Your task to perform on an android device: Search for the best 4k TVs Image 0: 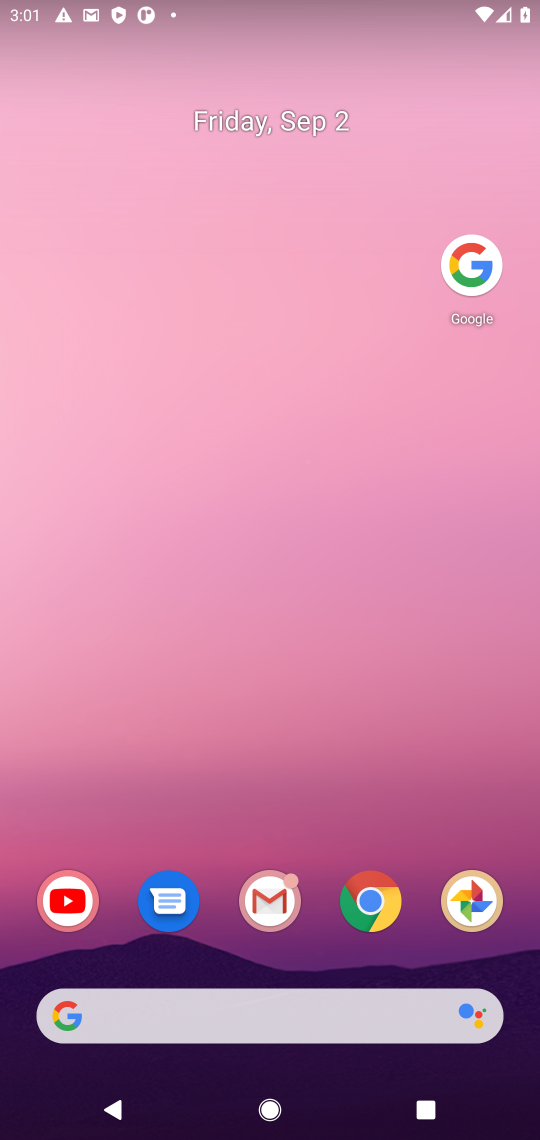
Step 0: drag from (220, 960) to (344, 71)
Your task to perform on an android device: Search for the best 4k TVs Image 1: 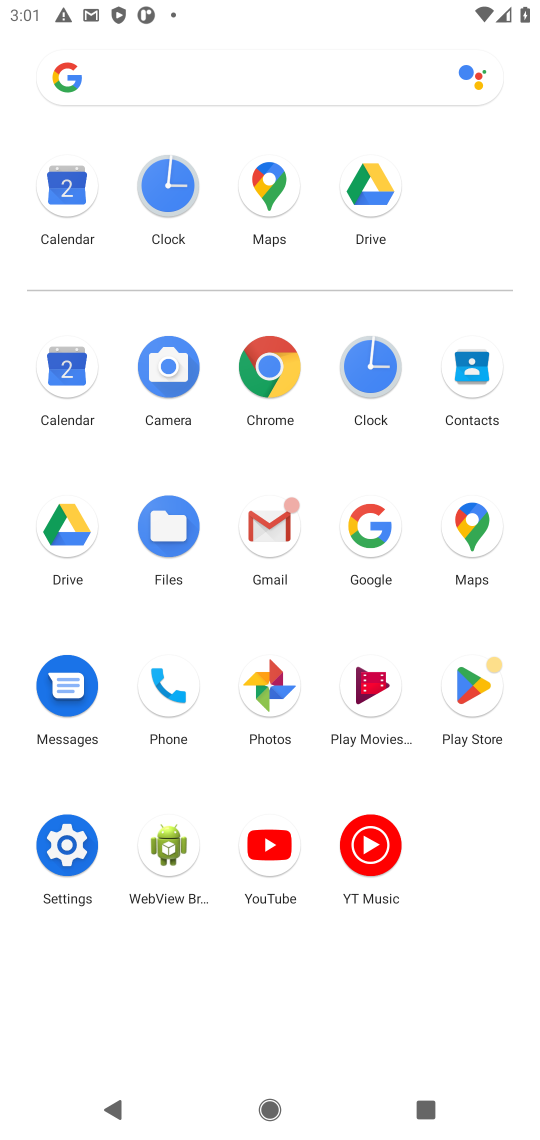
Step 1: click (368, 508)
Your task to perform on an android device: Search for the best 4k TVs Image 2: 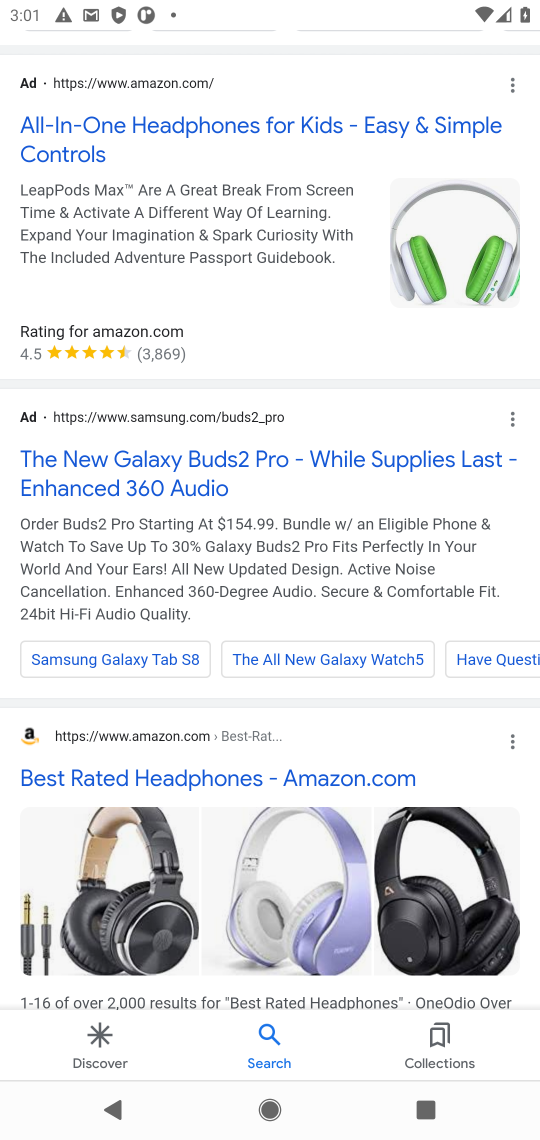
Step 2: drag from (338, 222) to (277, 880)
Your task to perform on an android device: Search for the best 4k TVs Image 3: 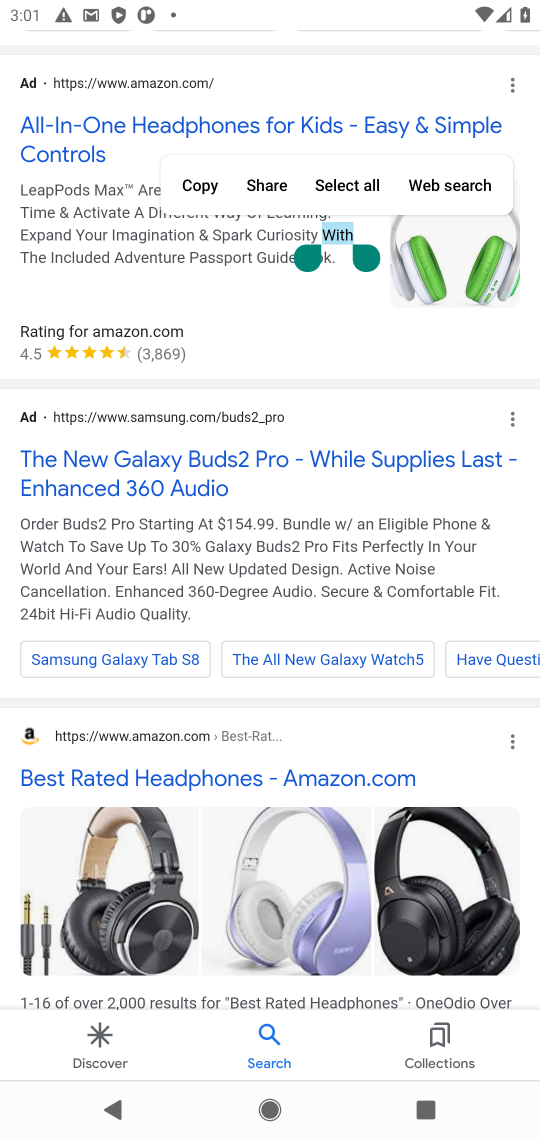
Step 3: drag from (208, 87) to (193, 707)
Your task to perform on an android device: Search for the best 4k TVs Image 4: 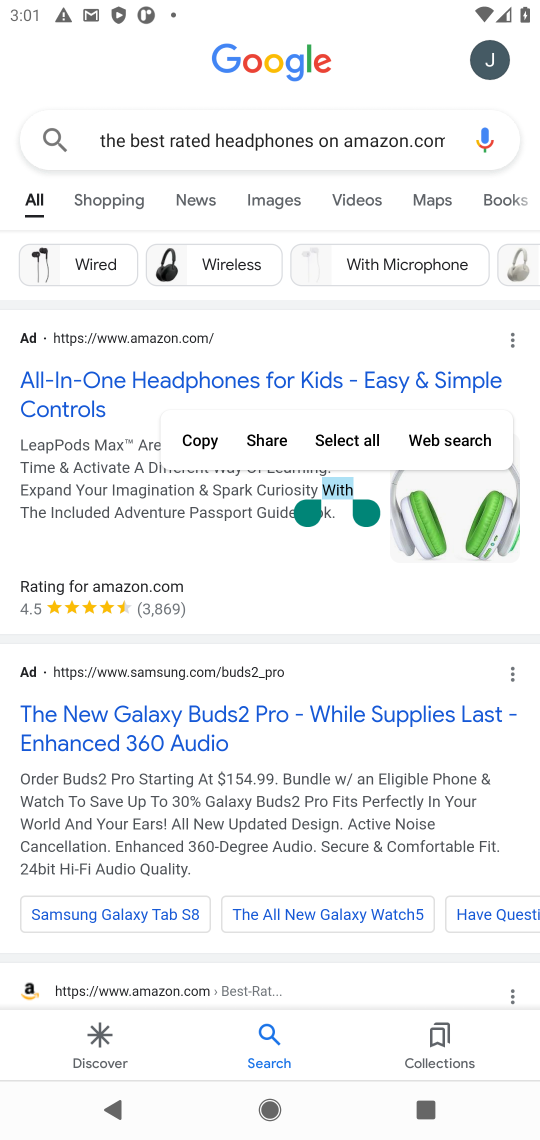
Step 4: click (281, 85)
Your task to perform on an android device: Search for the best 4k TVs Image 5: 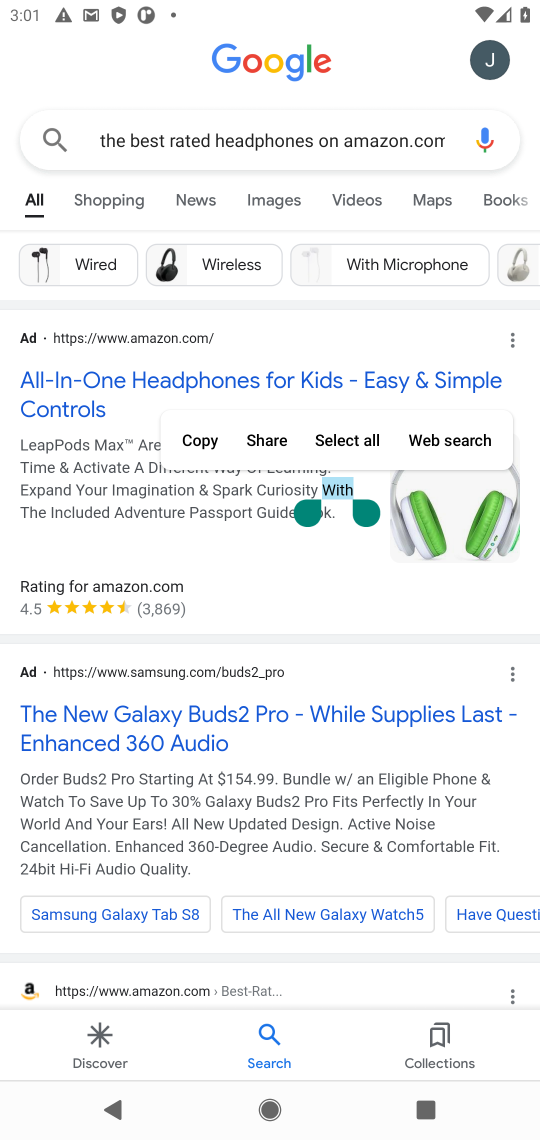
Step 5: click (270, 155)
Your task to perform on an android device: Search for the best 4k TVs Image 6: 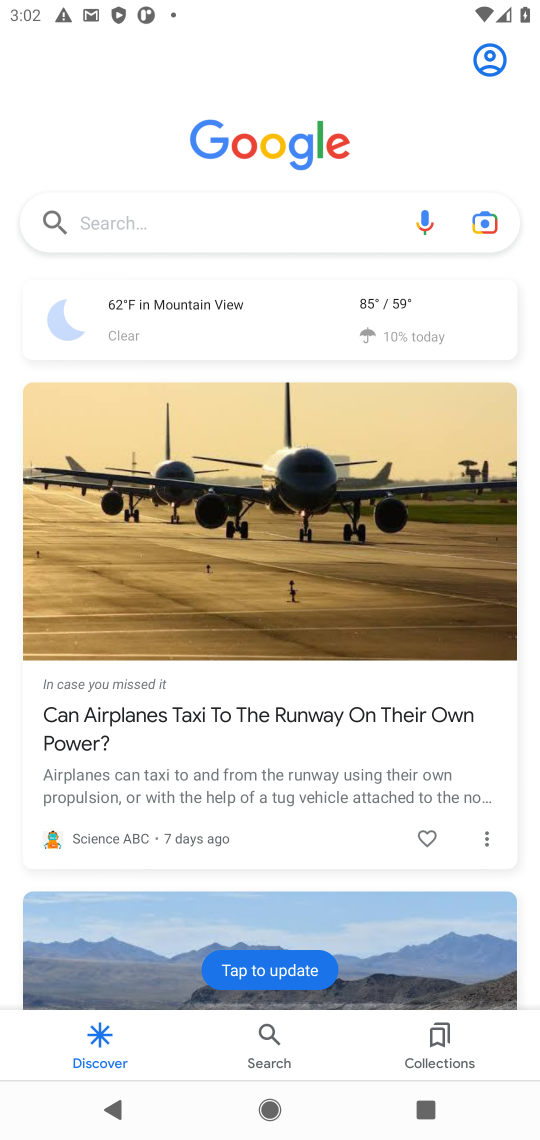
Step 6: click (246, 207)
Your task to perform on an android device: Search for the best 4k TVs Image 7: 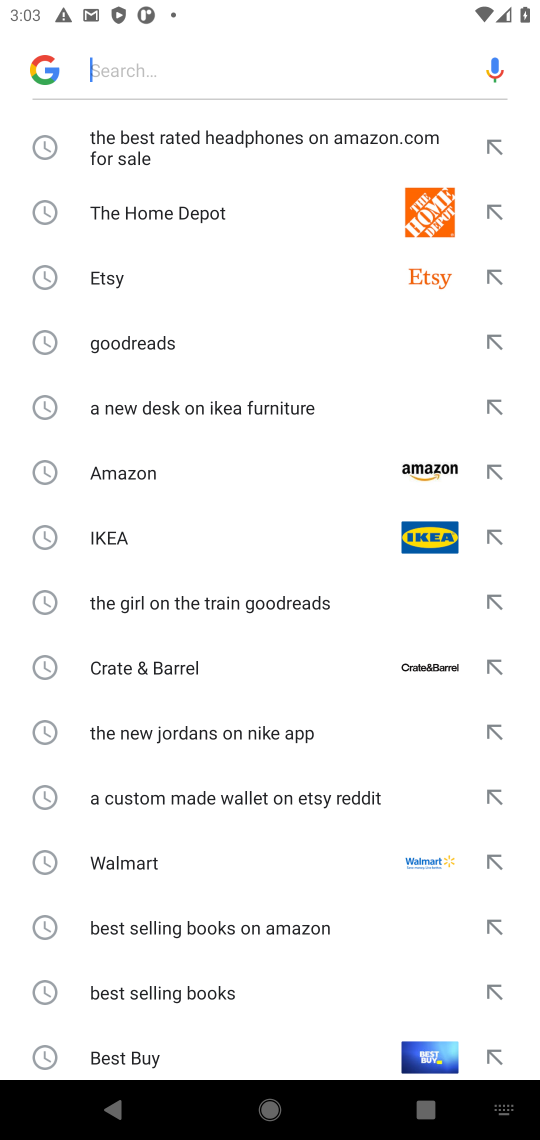
Step 7: type " the best 4k TVs "
Your task to perform on an android device: Search for the best 4k TVs Image 8: 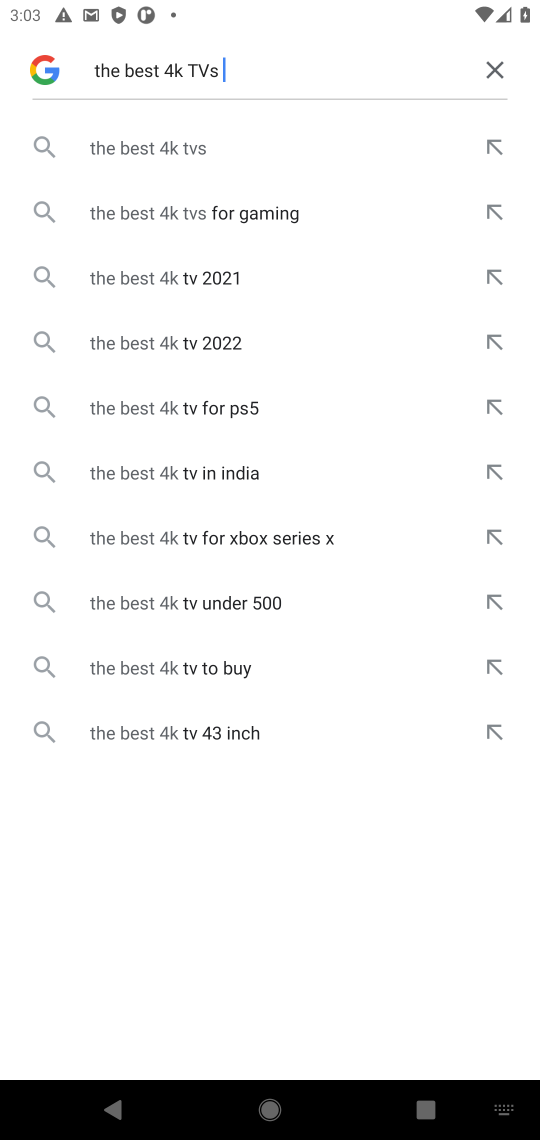
Step 8: click (172, 148)
Your task to perform on an android device: Search for the best 4k TVs Image 9: 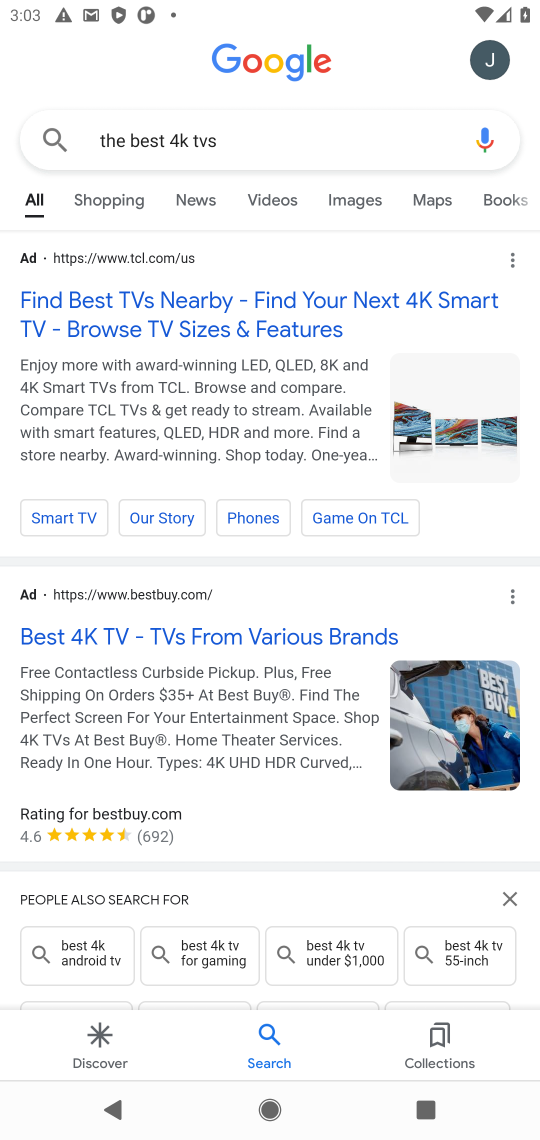
Step 9: click (132, 311)
Your task to perform on an android device: Search for the best 4k TVs Image 10: 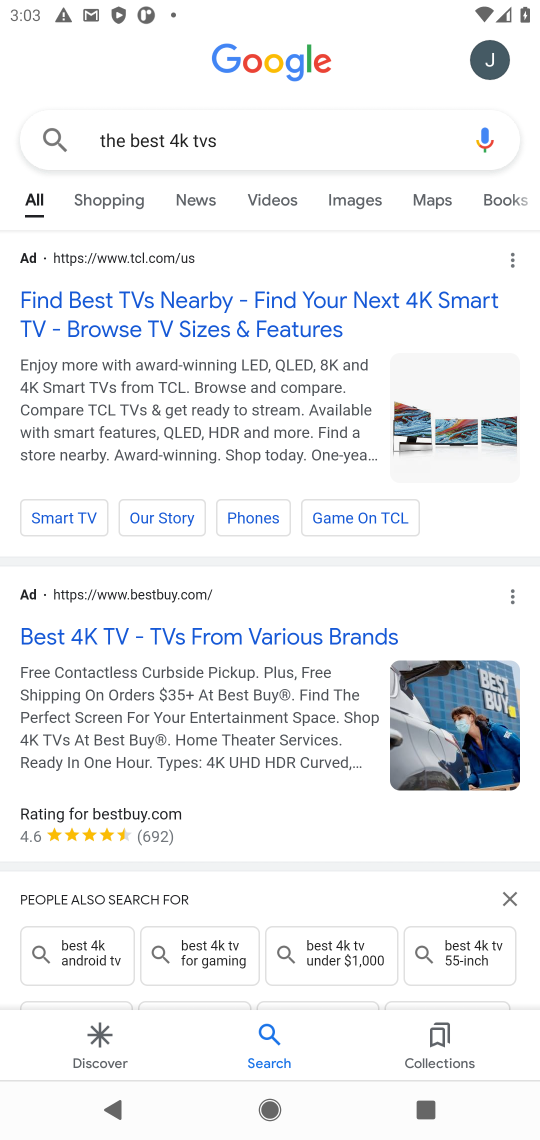
Step 10: click (216, 636)
Your task to perform on an android device: Search for the best 4k TVs Image 11: 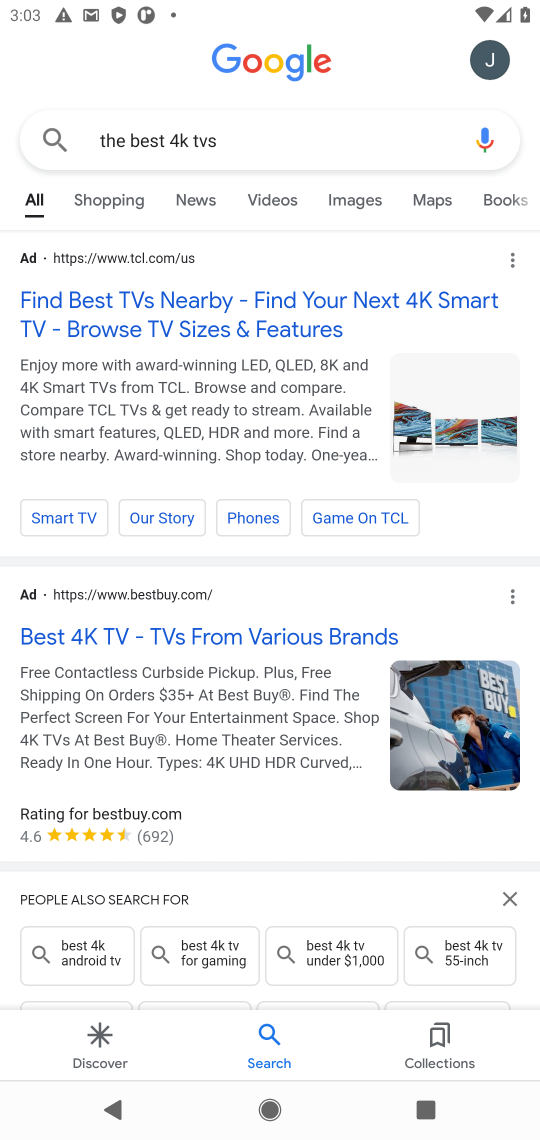
Step 11: click (216, 636)
Your task to perform on an android device: Search for the best 4k TVs Image 12: 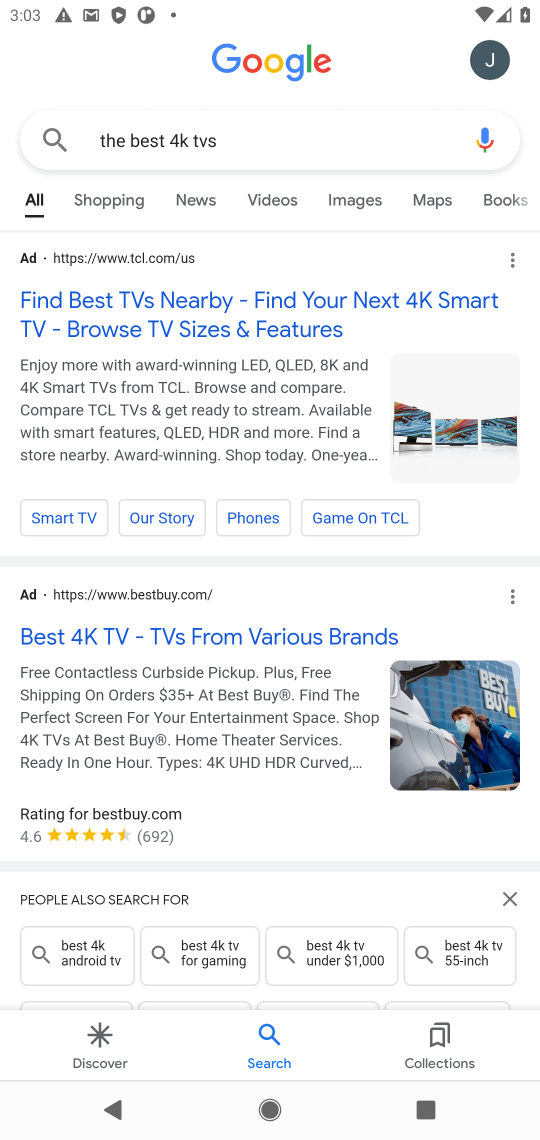
Step 12: task complete